Your task to perform on an android device: Go to Yahoo.com Image 0: 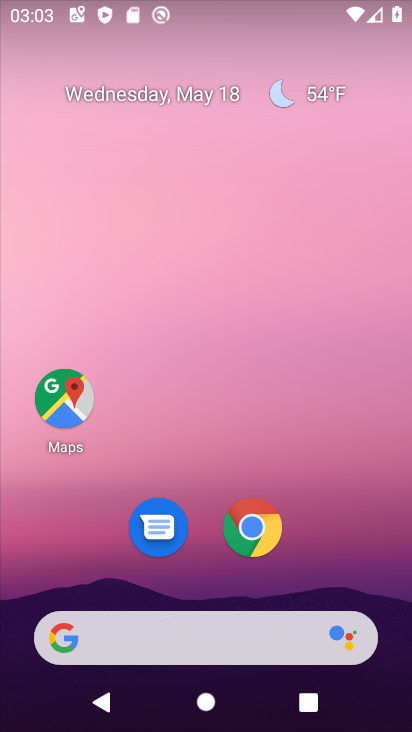
Step 0: click (259, 540)
Your task to perform on an android device: Go to Yahoo.com Image 1: 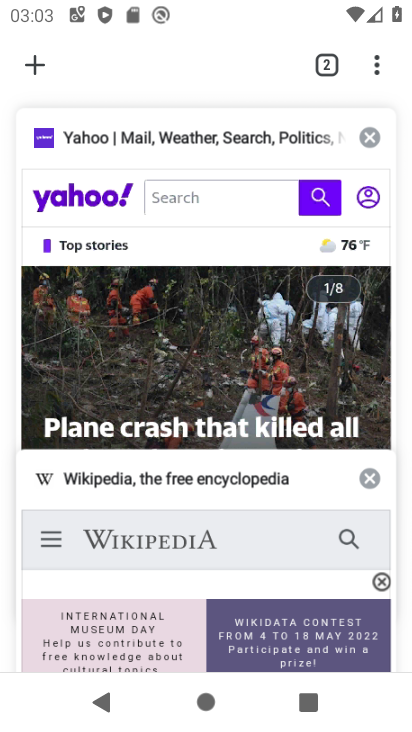
Step 1: click (195, 349)
Your task to perform on an android device: Go to Yahoo.com Image 2: 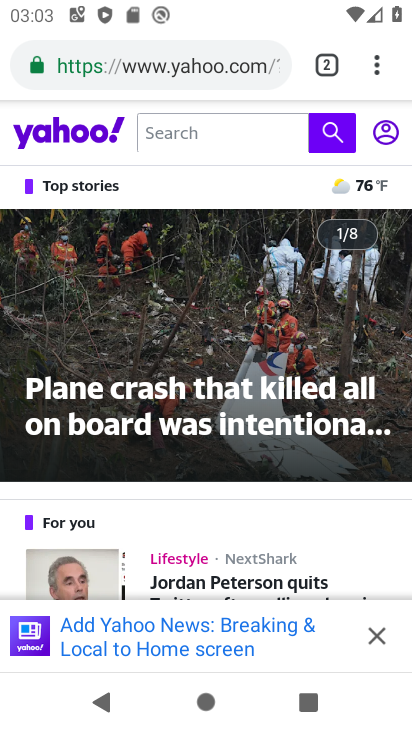
Step 2: task complete